Your task to perform on an android device: Toggle the flashlight Image 0: 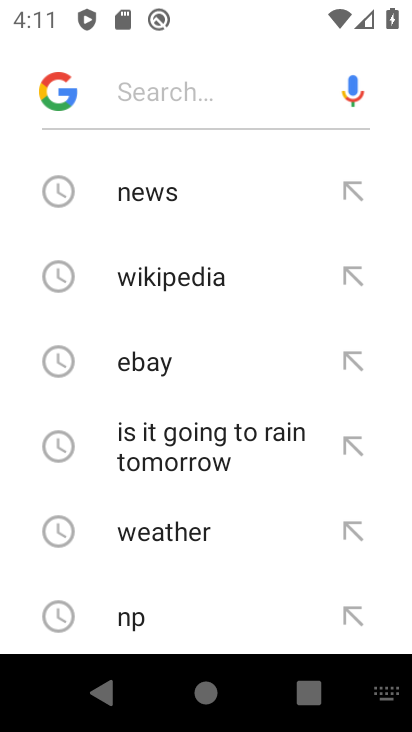
Step 0: press home button
Your task to perform on an android device: Toggle the flashlight Image 1: 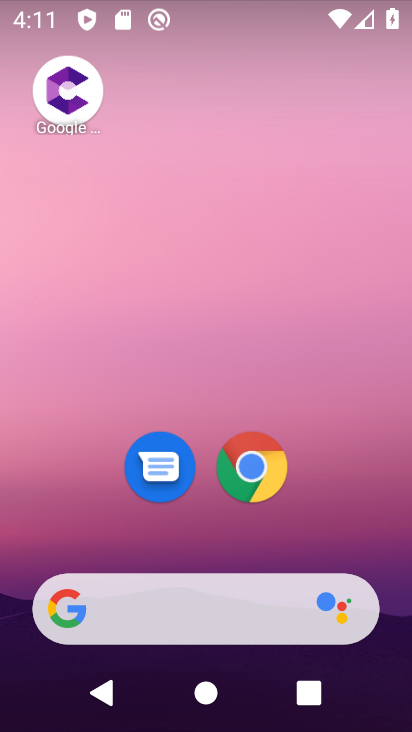
Step 1: click (224, 528)
Your task to perform on an android device: Toggle the flashlight Image 2: 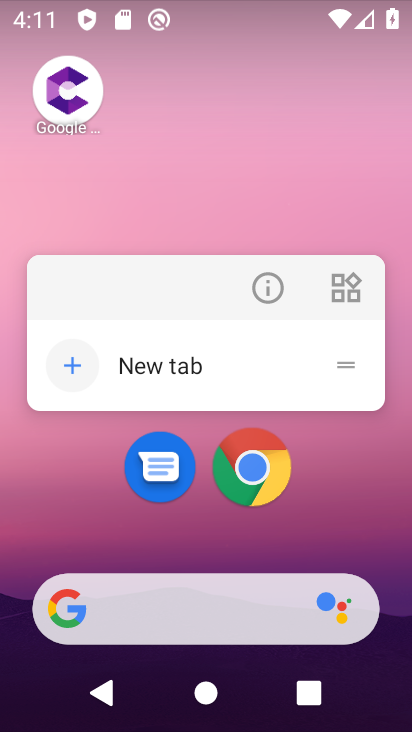
Step 2: task complete